Your task to perform on an android device: turn on priority inbox in the gmail app Image 0: 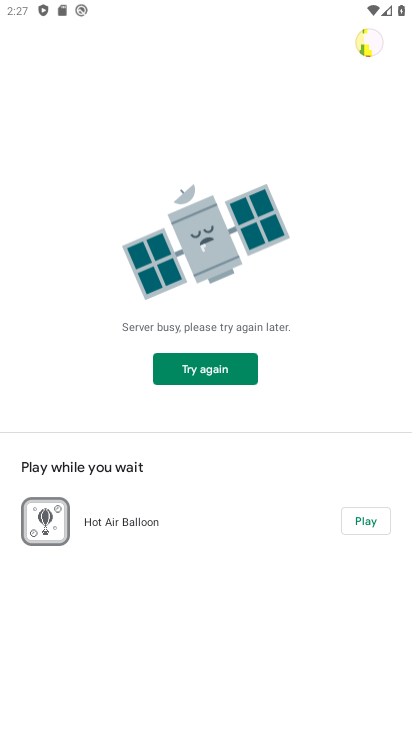
Step 0: press home button
Your task to perform on an android device: turn on priority inbox in the gmail app Image 1: 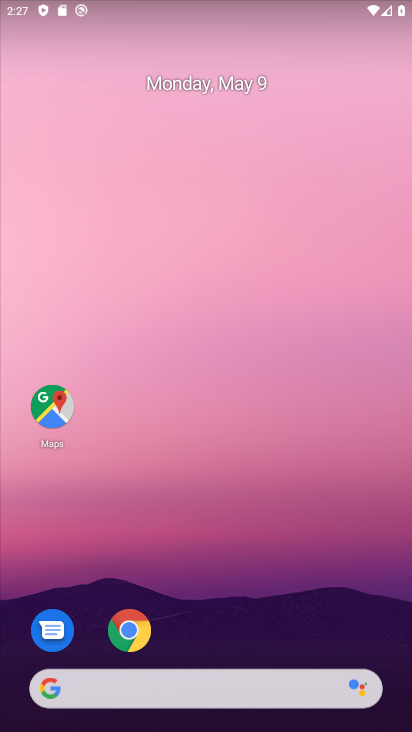
Step 1: drag from (263, 588) to (158, 242)
Your task to perform on an android device: turn on priority inbox in the gmail app Image 2: 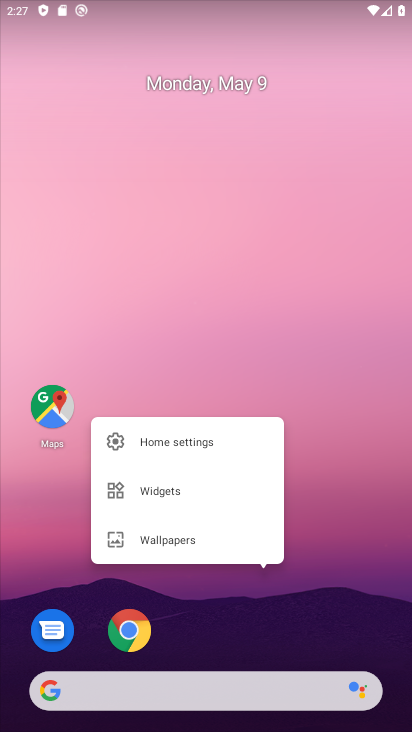
Step 2: click (300, 581)
Your task to perform on an android device: turn on priority inbox in the gmail app Image 3: 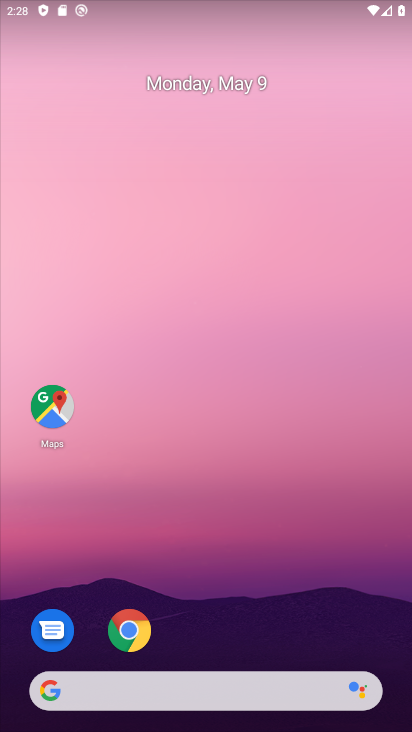
Step 3: drag from (300, 581) to (217, 108)
Your task to perform on an android device: turn on priority inbox in the gmail app Image 4: 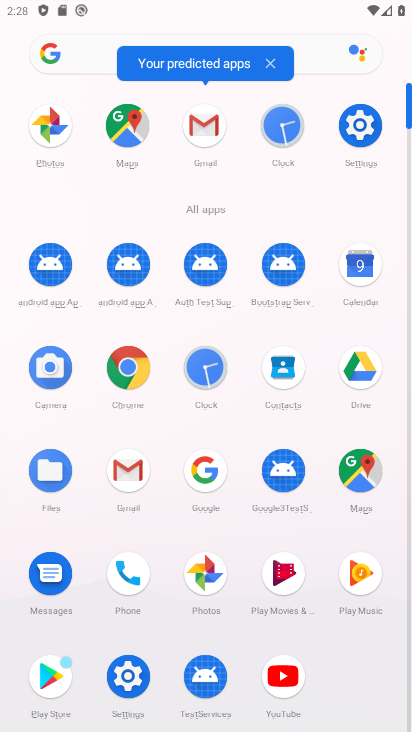
Step 4: click (208, 127)
Your task to perform on an android device: turn on priority inbox in the gmail app Image 5: 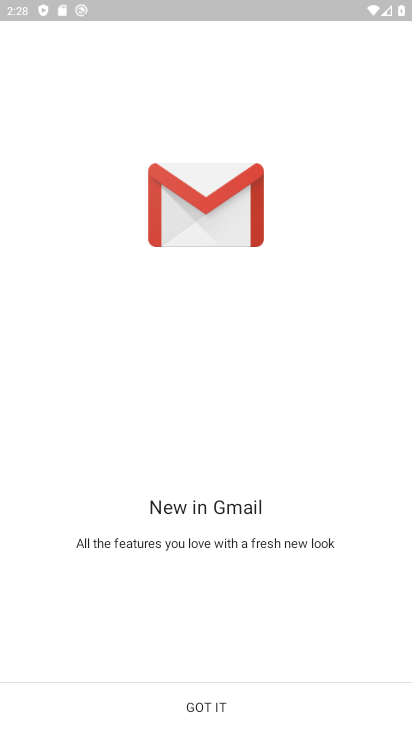
Step 5: click (203, 704)
Your task to perform on an android device: turn on priority inbox in the gmail app Image 6: 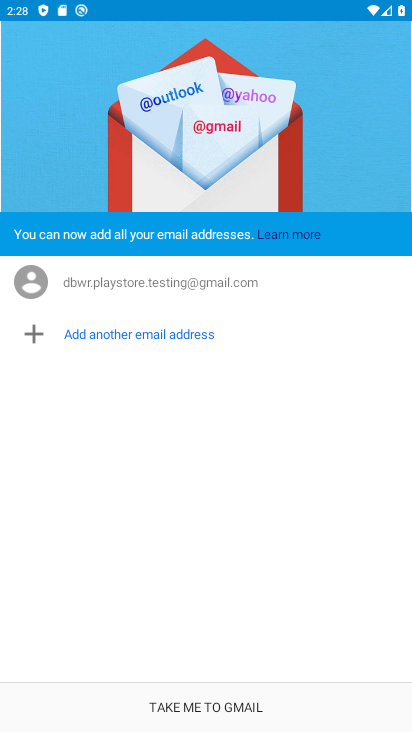
Step 6: click (203, 704)
Your task to perform on an android device: turn on priority inbox in the gmail app Image 7: 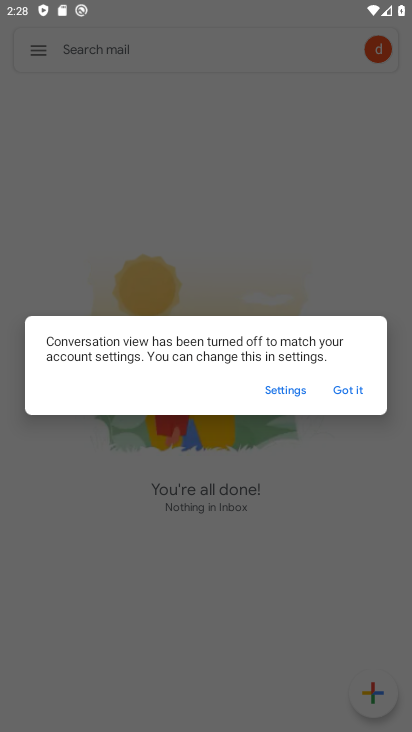
Step 7: click (353, 384)
Your task to perform on an android device: turn on priority inbox in the gmail app Image 8: 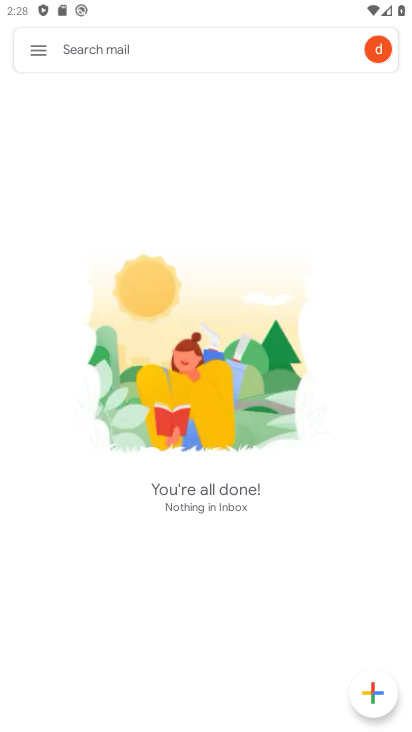
Step 8: click (39, 49)
Your task to perform on an android device: turn on priority inbox in the gmail app Image 9: 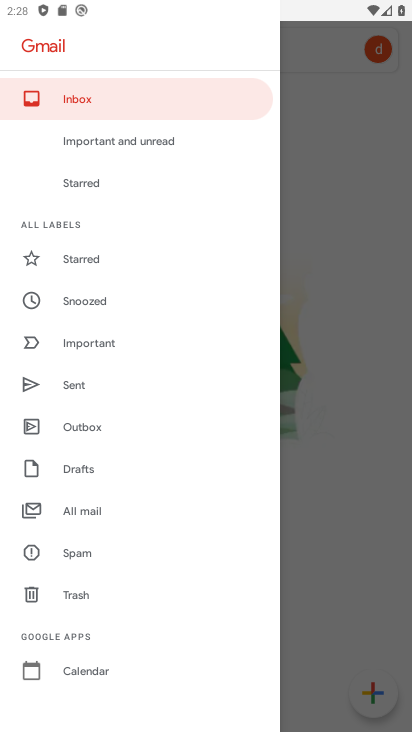
Step 9: drag from (142, 666) to (127, 249)
Your task to perform on an android device: turn on priority inbox in the gmail app Image 10: 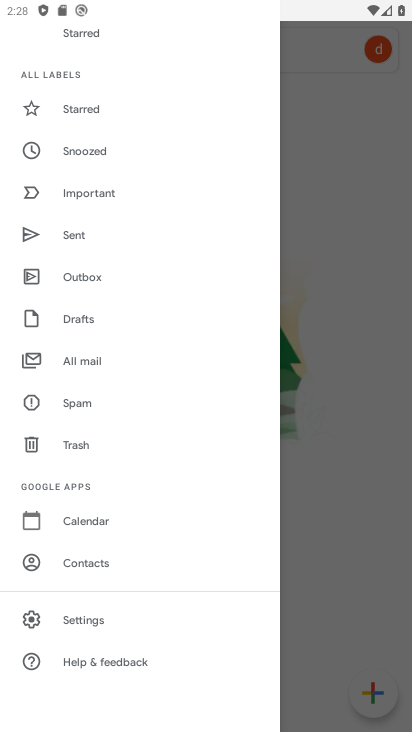
Step 10: click (156, 615)
Your task to perform on an android device: turn on priority inbox in the gmail app Image 11: 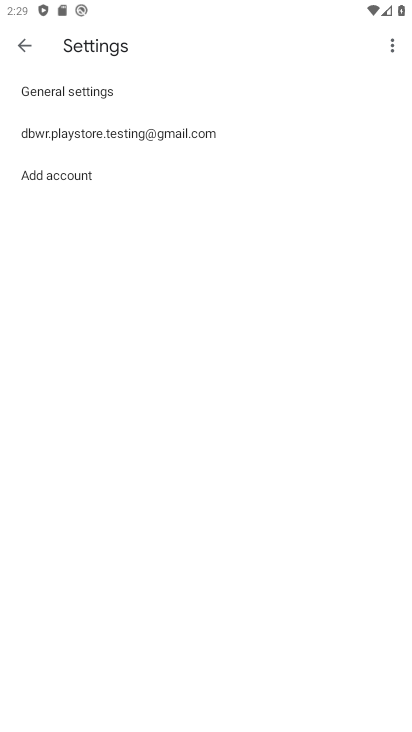
Step 11: click (193, 146)
Your task to perform on an android device: turn on priority inbox in the gmail app Image 12: 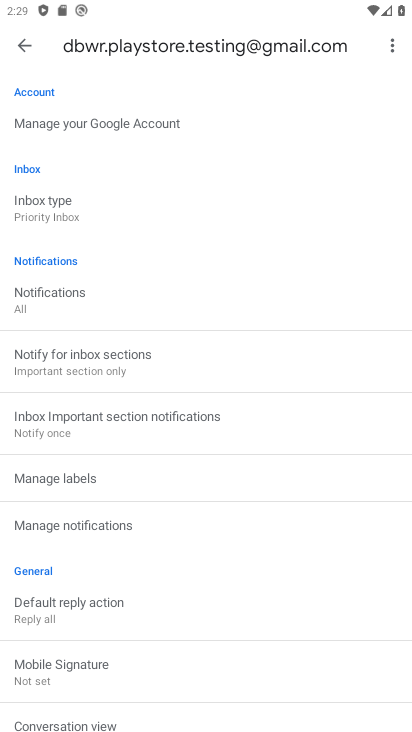
Step 12: click (182, 209)
Your task to perform on an android device: turn on priority inbox in the gmail app Image 13: 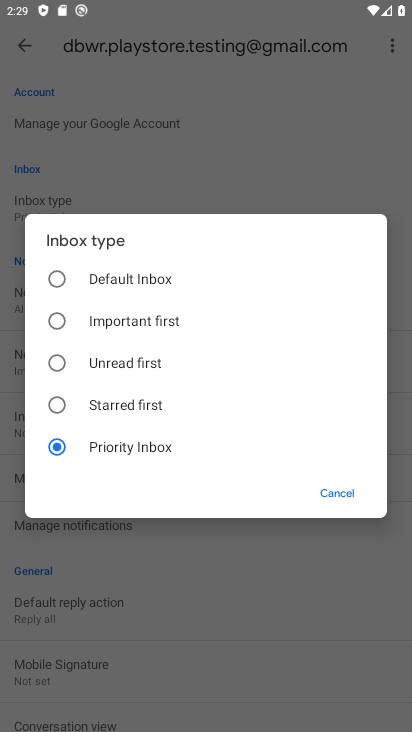
Step 13: task complete